Your task to perform on an android device: uninstall "DuckDuckGo Privacy Browser" Image 0: 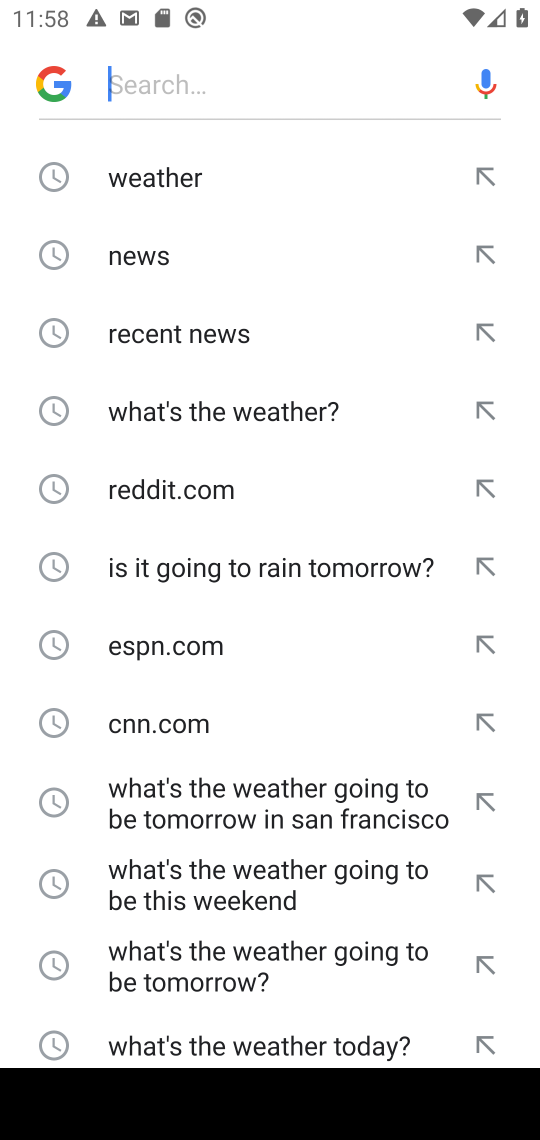
Step 0: press home button
Your task to perform on an android device: uninstall "DuckDuckGo Privacy Browser" Image 1: 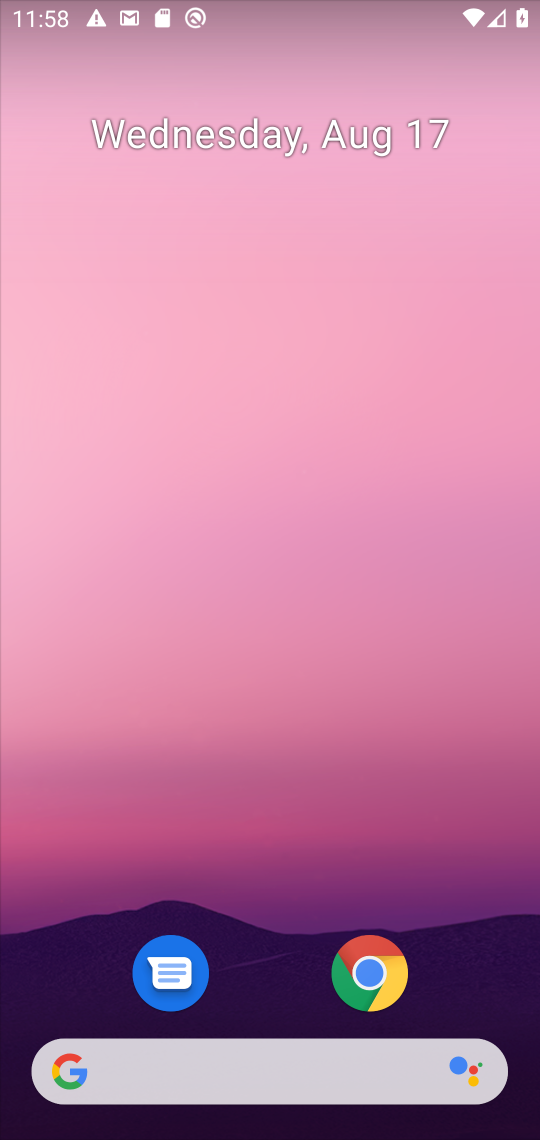
Step 1: drag from (284, 996) to (170, 154)
Your task to perform on an android device: uninstall "DuckDuckGo Privacy Browser" Image 2: 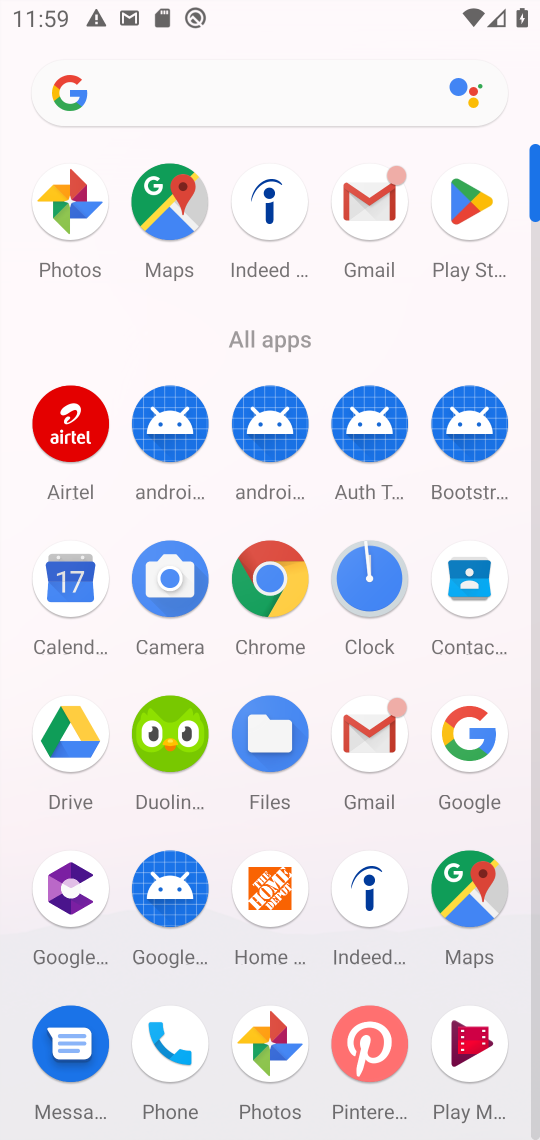
Step 2: click (464, 198)
Your task to perform on an android device: uninstall "DuckDuckGo Privacy Browser" Image 3: 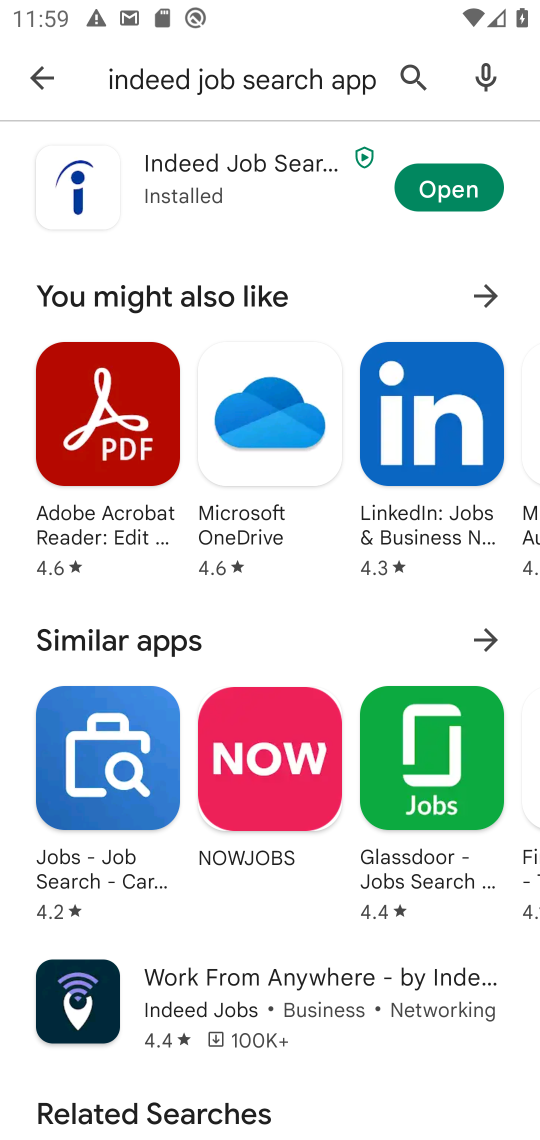
Step 3: click (410, 67)
Your task to perform on an android device: uninstall "DuckDuckGo Privacy Browser" Image 4: 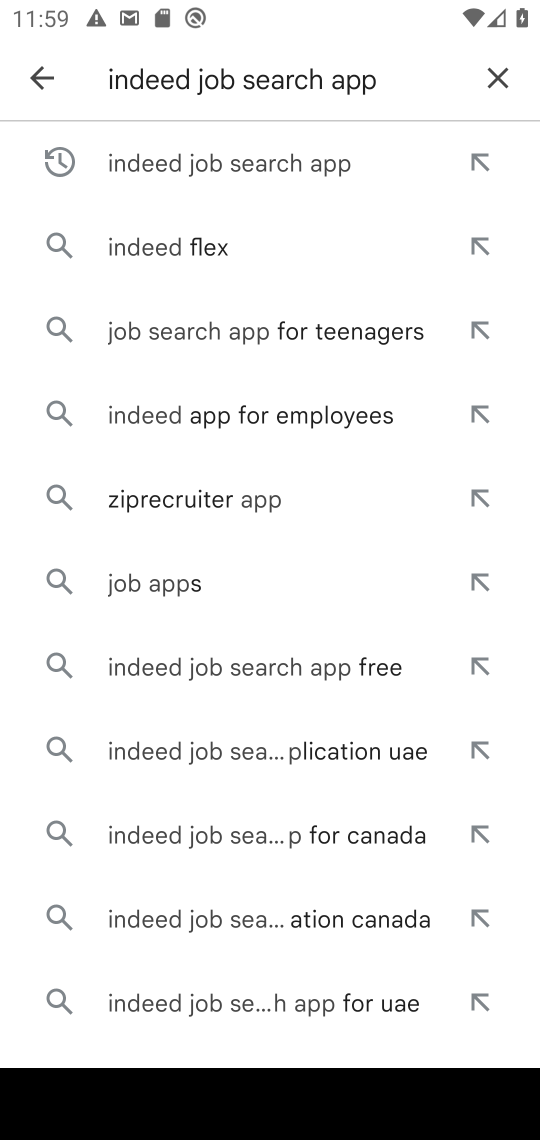
Step 4: click (496, 75)
Your task to perform on an android device: uninstall "DuckDuckGo Privacy Browser" Image 5: 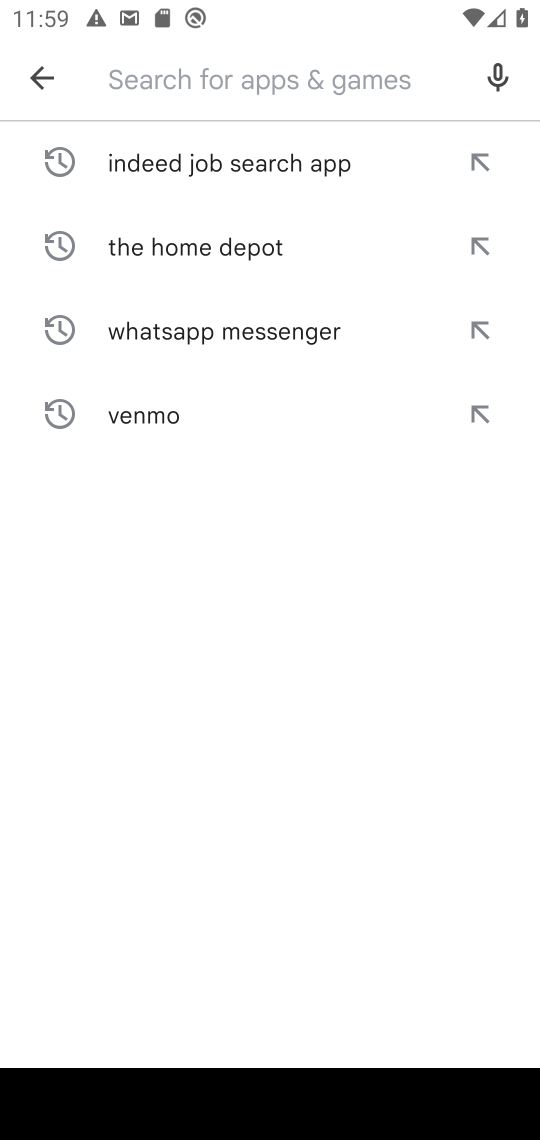
Step 5: type "DuckDuckGo Privacy Browser"
Your task to perform on an android device: uninstall "DuckDuckGo Privacy Browser" Image 6: 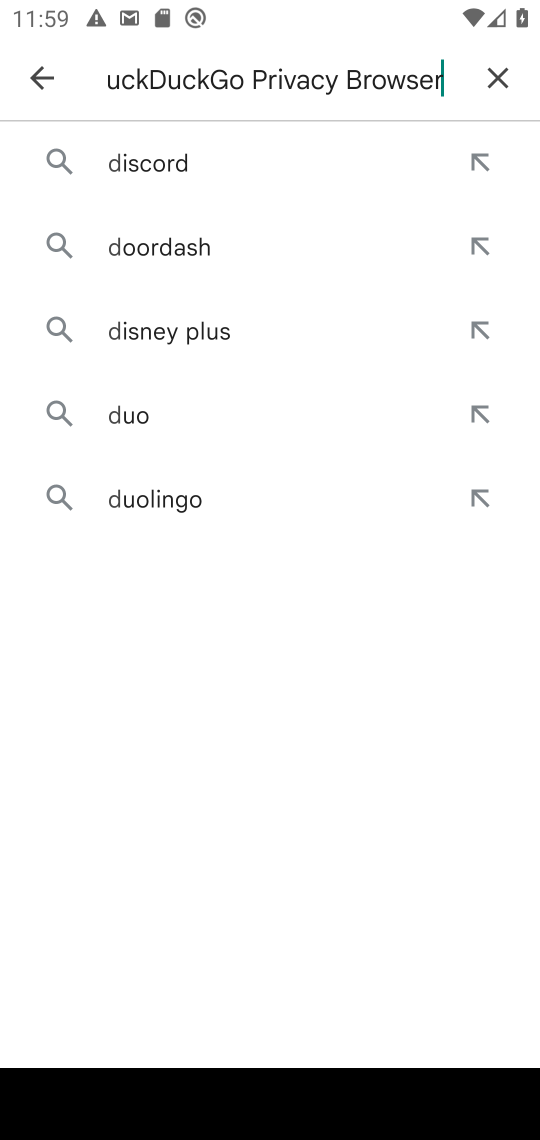
Step 6: type ""
Your task to perform on an android device: uninstall "DuckDuckGo Privacy Browser" Image 7: 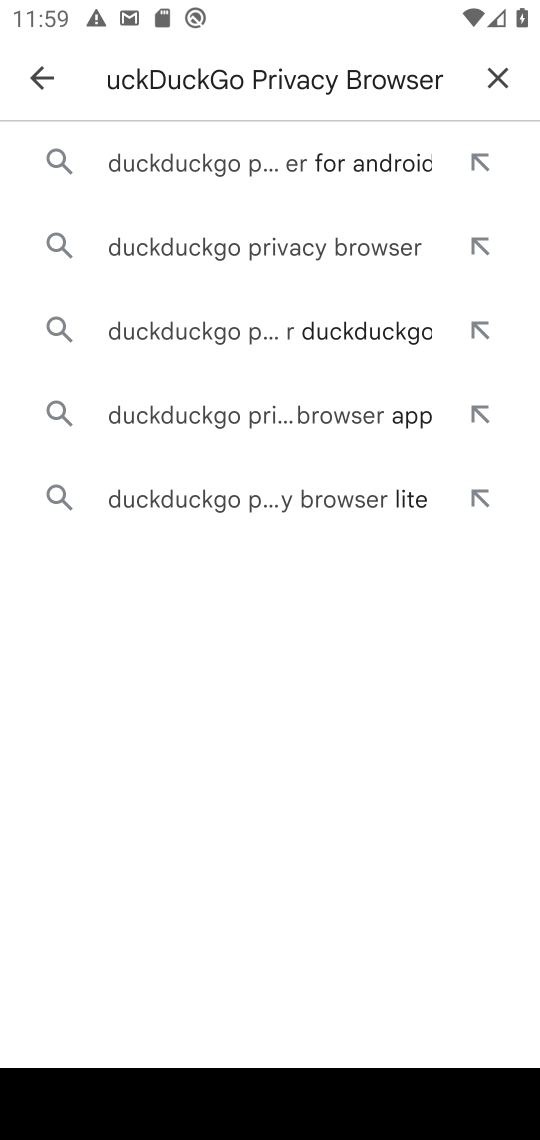
Step 7: click (295, 249)
Your task to perform on an android device: uninstall "DuckDuckGo Privacy Browser" Image 8: 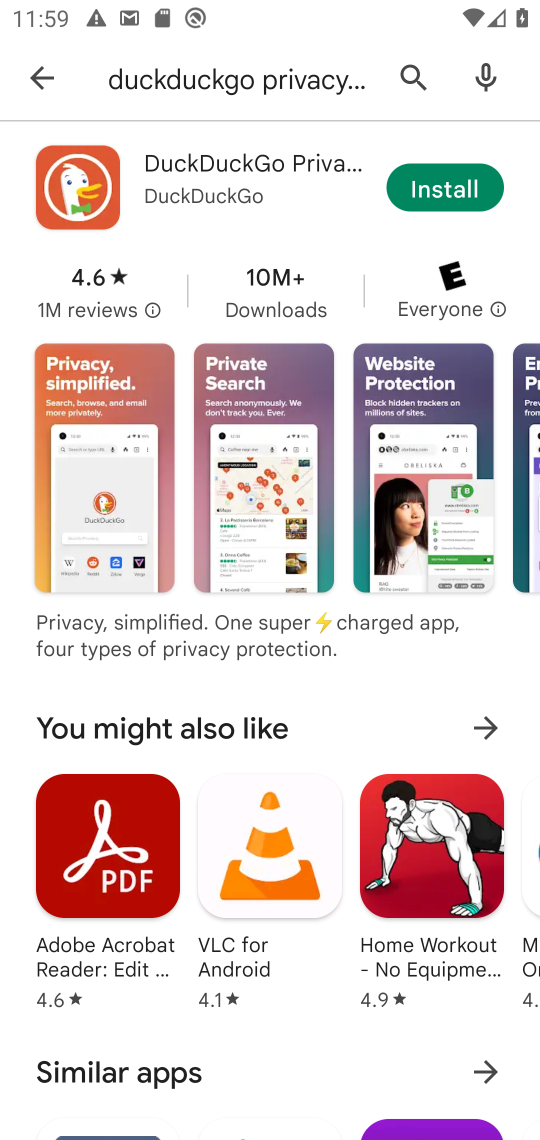
Step 8: click (244, 172)
Your task to perform on an android device: uninstall "DuckDuckGo Privacy Browser" Image 9: 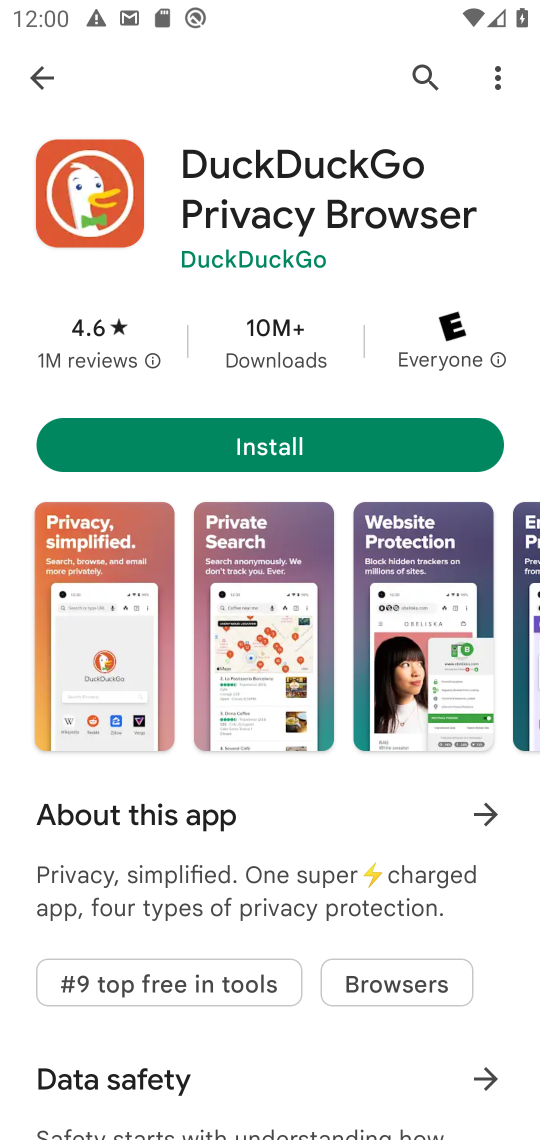
Step 9: task complete